Your task to perform on an android device: Open the map Image 0: 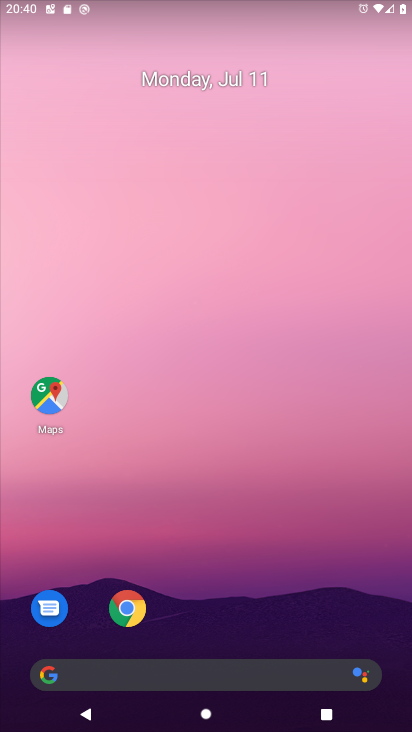
Step 0: click (39, 419)
Your task to perform on an android device: Open the map Image 1: 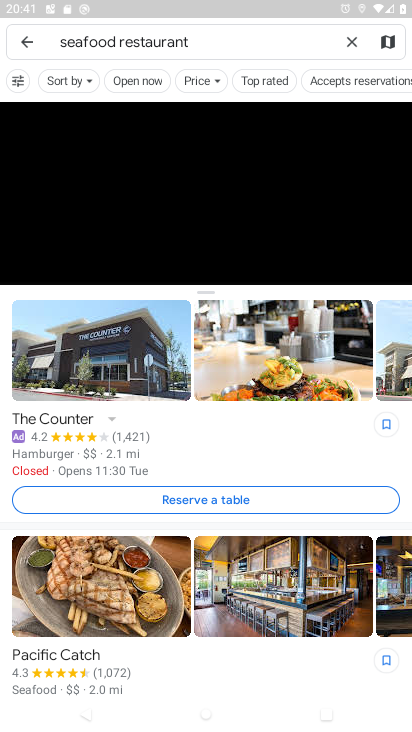
Step 1: task complete